Your task to perform on an android device: Go to Maps Image 0: 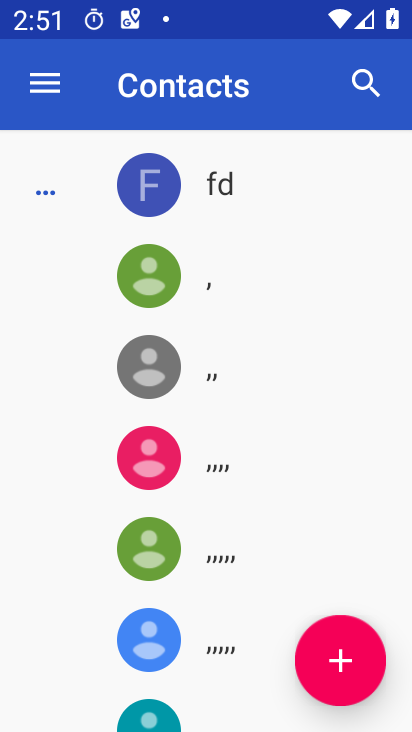
Step 0: press home button
Your task to perform on an android device: Go to Maps Image 1: 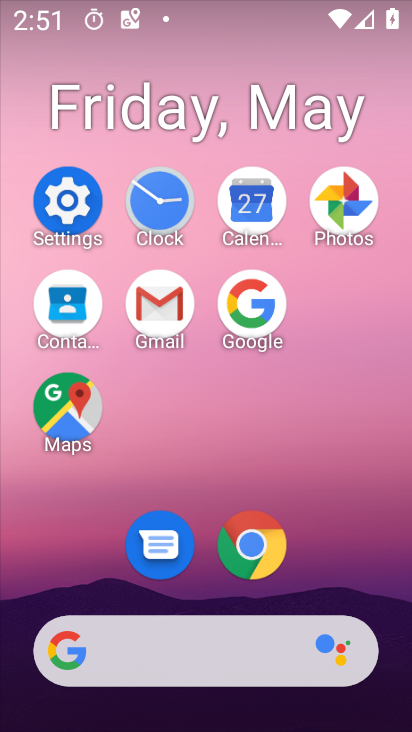
Step 1: click (77, 405)
Your task to perform on an android device: Go to Maps Image 2: 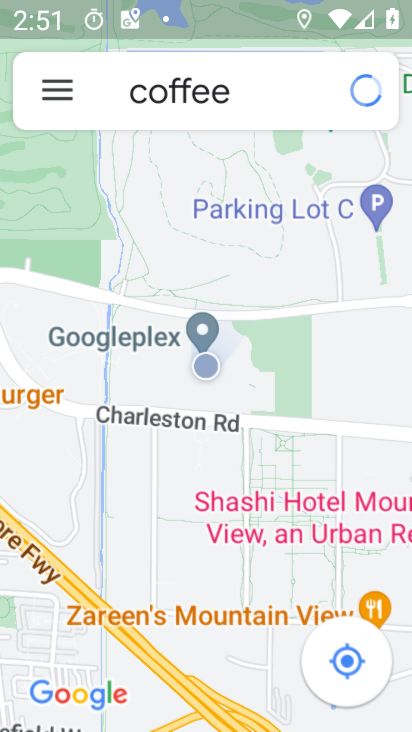
Step 2: task complete